Your task to perform on an android device: Add rayovac triple a to the cart on walmart.com, then select checkout. Image 0: 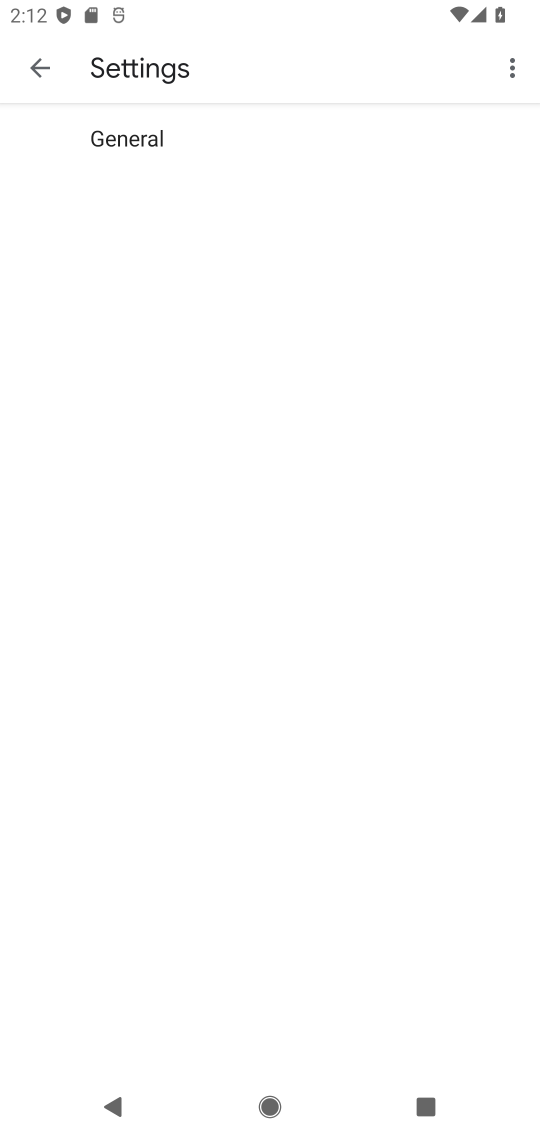
Step 0: press home button
Your task to perform on an android device: Add rayovac triple a to the cart on walmart.com, then select checkout. Image 1: 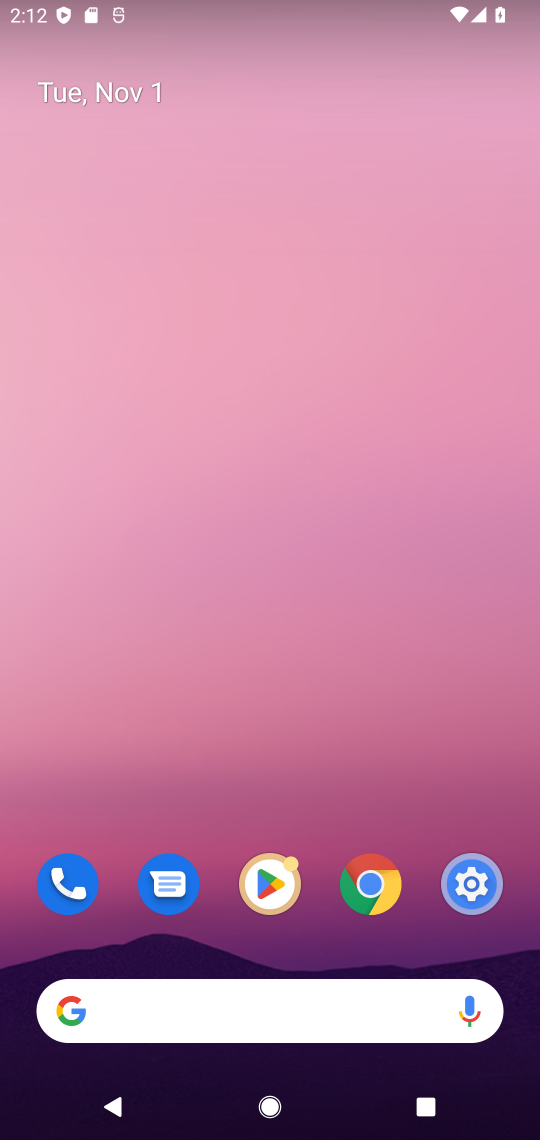
Step 1: drag from (239, 1008) to (265, 278)
Your task to perform on an android device: Add rayovac triple a to the cart on walmart.com, then select checkout. Image 2: 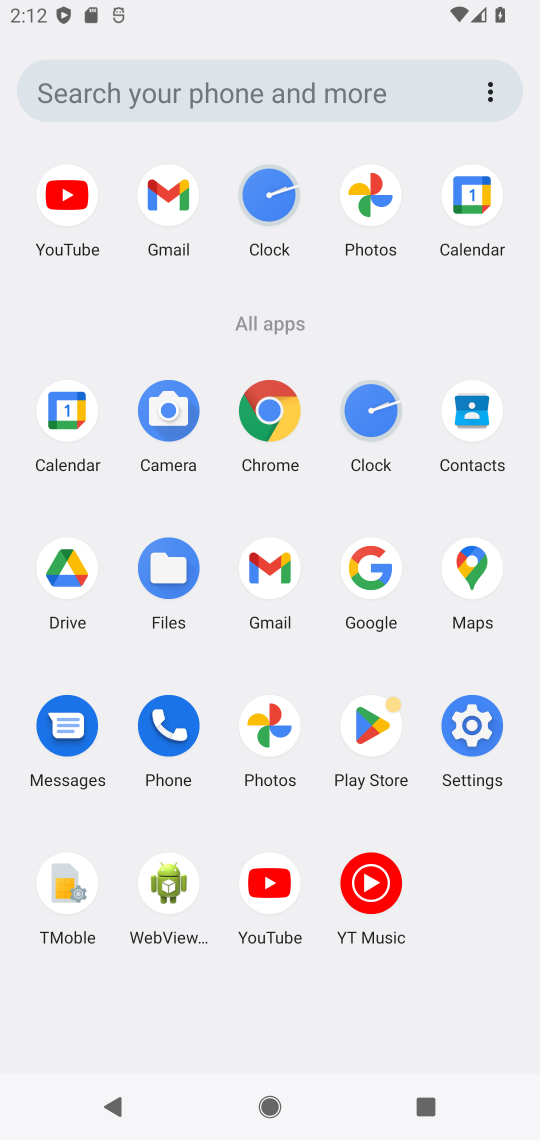
Step 2: click (366, 568)
Your task to perform on an android device: Add rayovac triple a to the cart on walmart.com, then select checkout. Image 3: 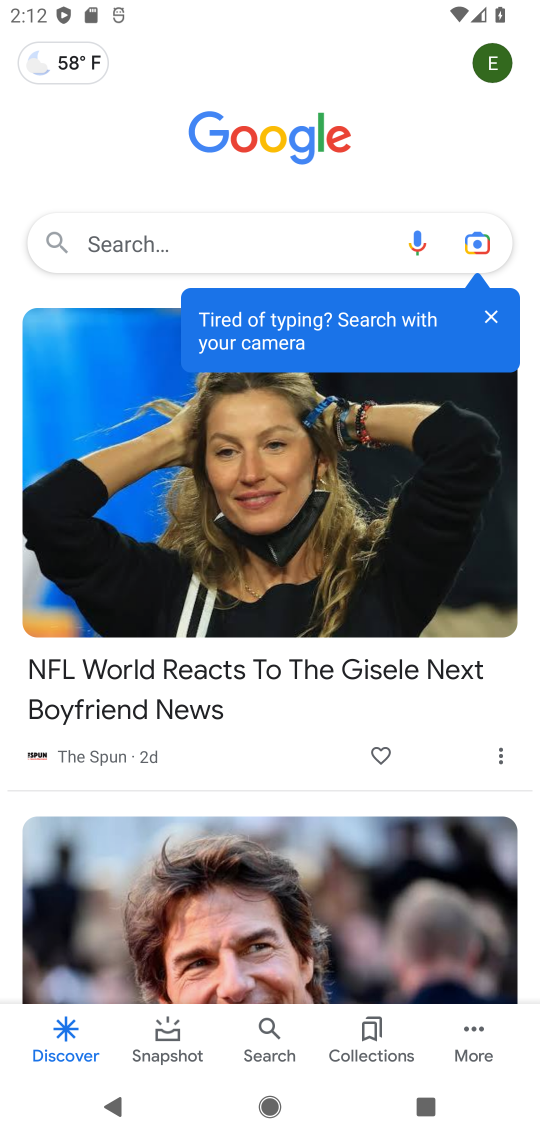
Step 3: click (202, 237)
Your task to perform on an android device: Add rayovac triple a to the cart on walmart.com, then select checkout. Image 4: 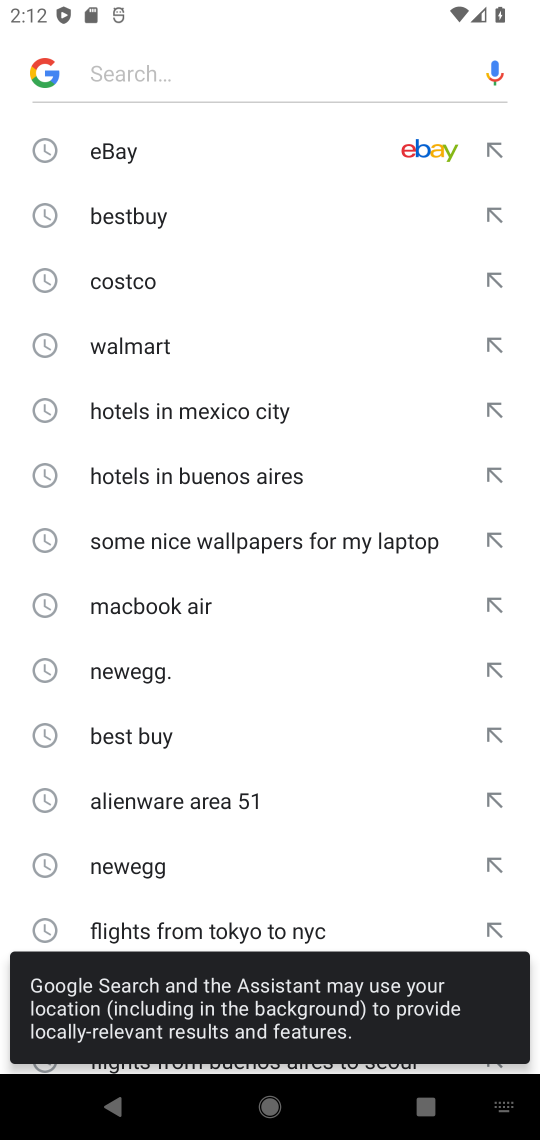
Step 4: type "walmart "
Your task to perform on an android device: Add rayovac triple a to the cart on walmart.com, then select checkout. Image 5: 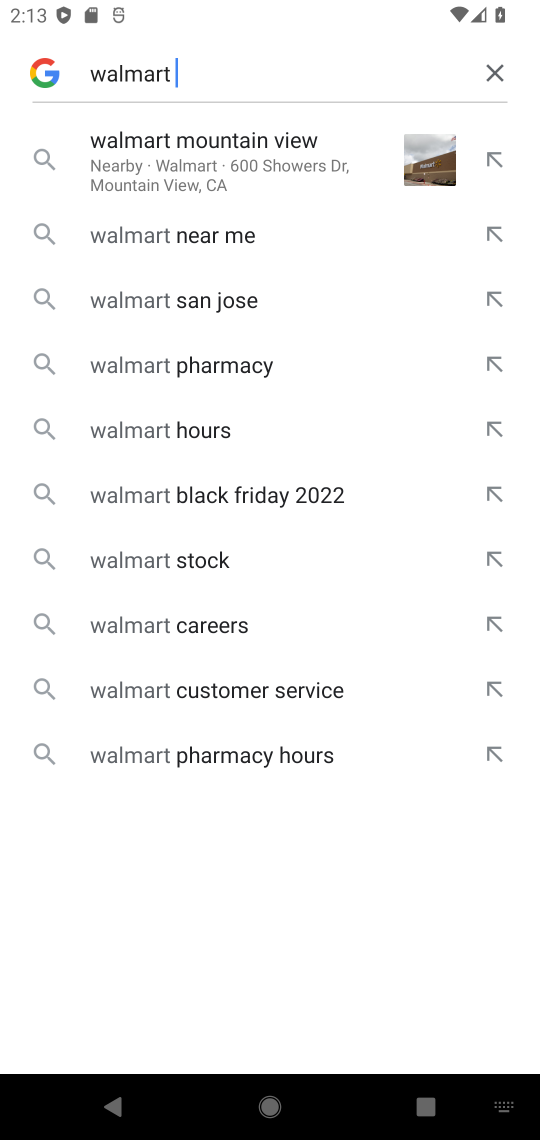
Step 5: click (172, 246)
Your task to perform on an android device: Add rayovac triple a to the cart on walmart.com, then select checkout. Image 6: 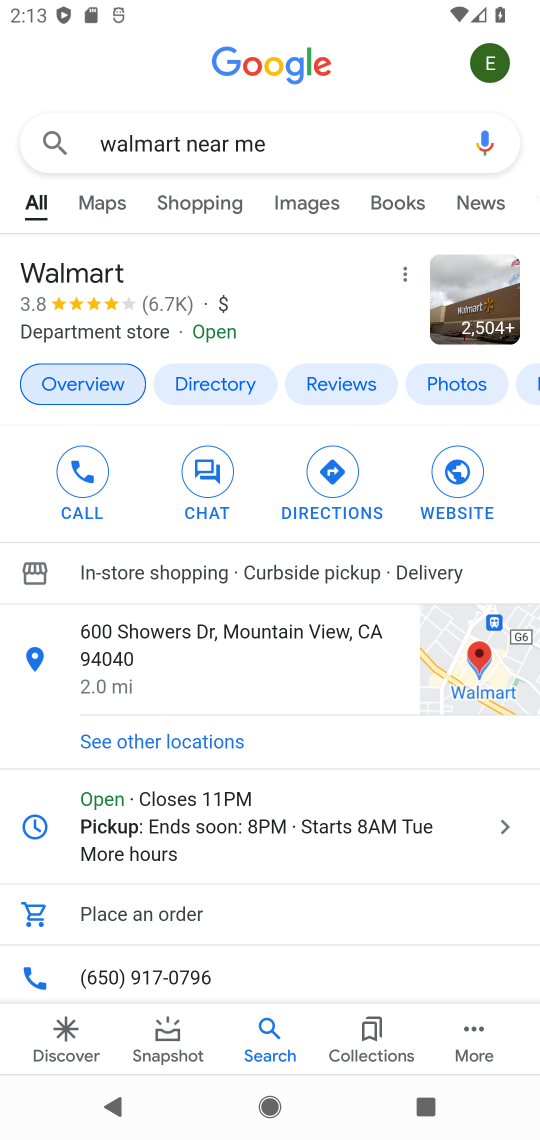
Step 6: drag from (211, 899) to (330, 377)
Your task to perform on an android device: Add rayovac triple a to the cart on walmart.com, then select checkout. Image 7: 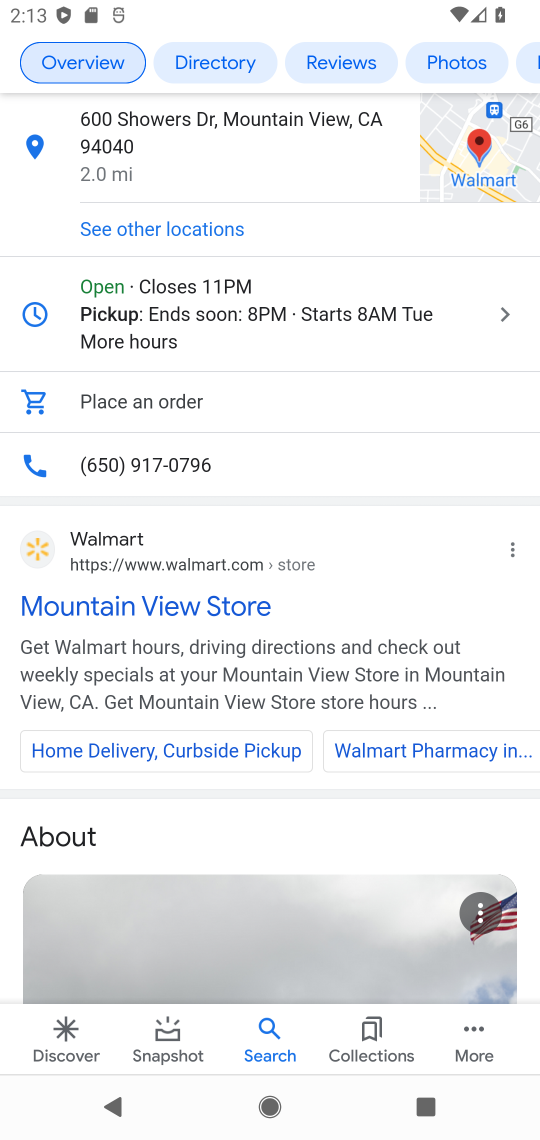
Step 7: drag from (144, 902) to (334, 325)
Your task to perform on an android device: Add rayovac triple a to the cart on walmart.com, then select checkout. Image 8: 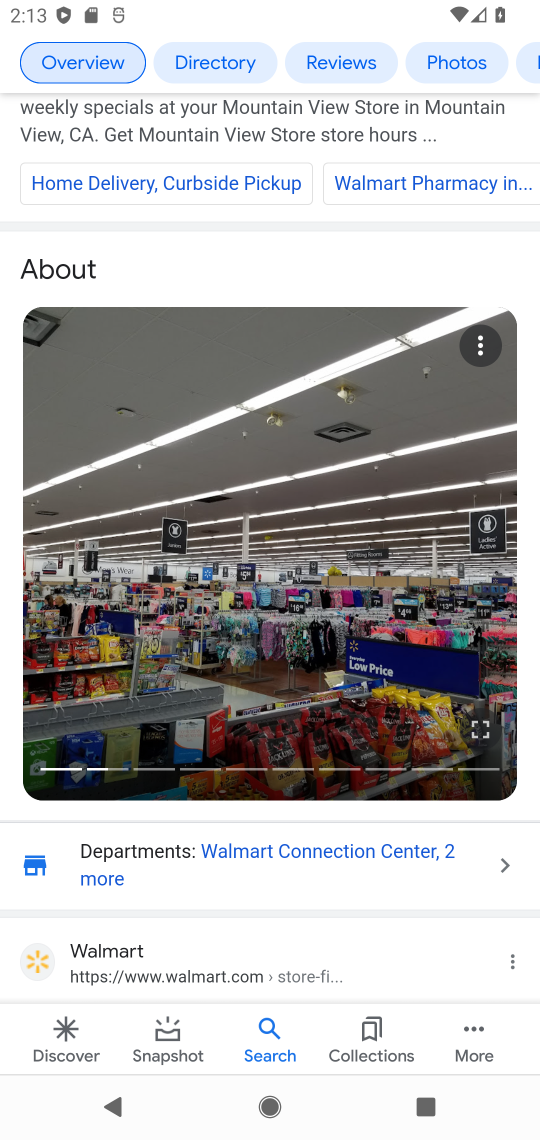
Step 8: drag from (159, 185) to (259, 175)
Your task to perform on an android device: Add rayovac triple a to the cart on walmart.com, then select checkout. Image 9: 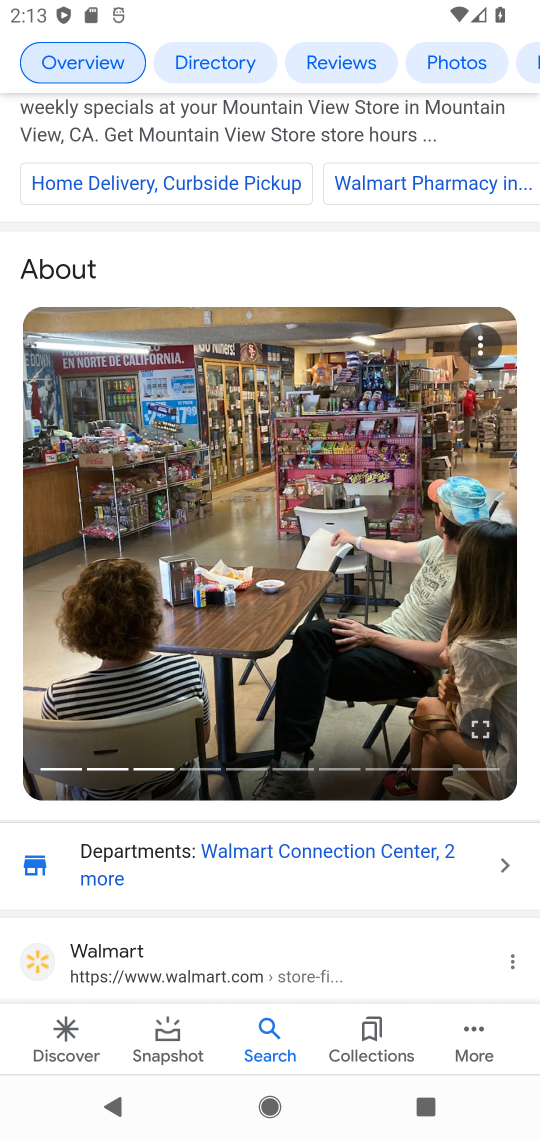
Step 9: drag from (165, 883) to (280, 392)
Your task to perform on an android device: Add rayovac triple a to the cart on walmart.com, then select checkout. Image 10: 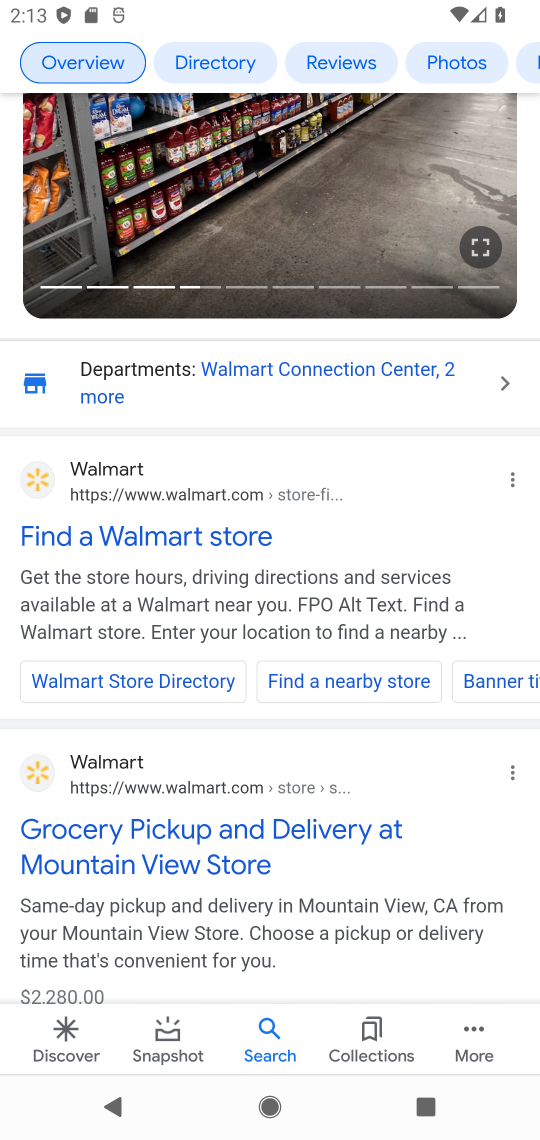
Step 10: click (28, 475)
Your task to perform on an android device: Add rayovac triple a to the cart on walmart.com, then select checkout. Image 11: 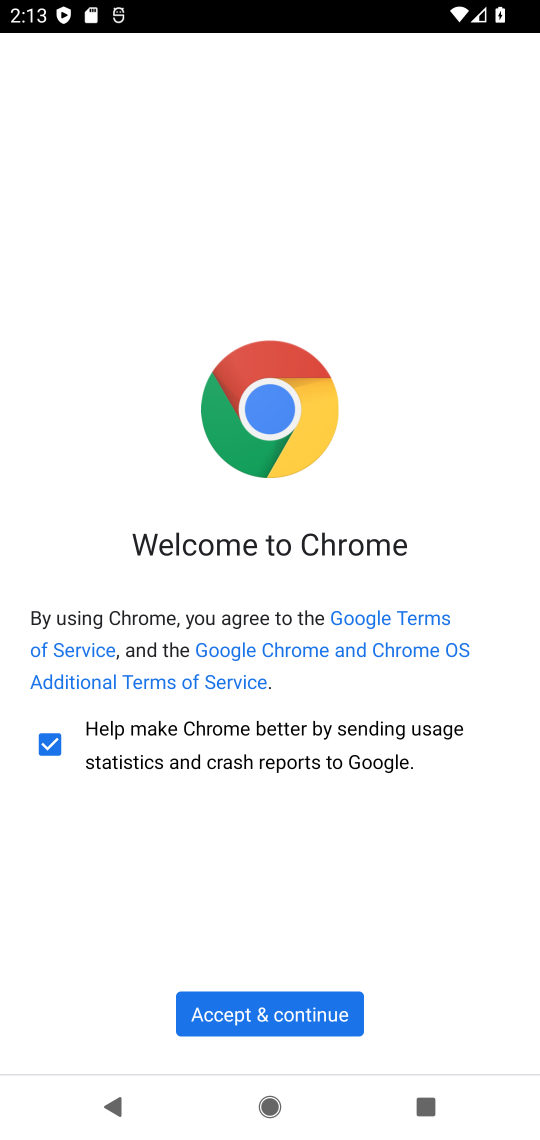
Step 11: click (300, 1009)
Your task to perform on an android device: Add rayovac triple a to the cart on walmart.com, then select checkout. Image 12: 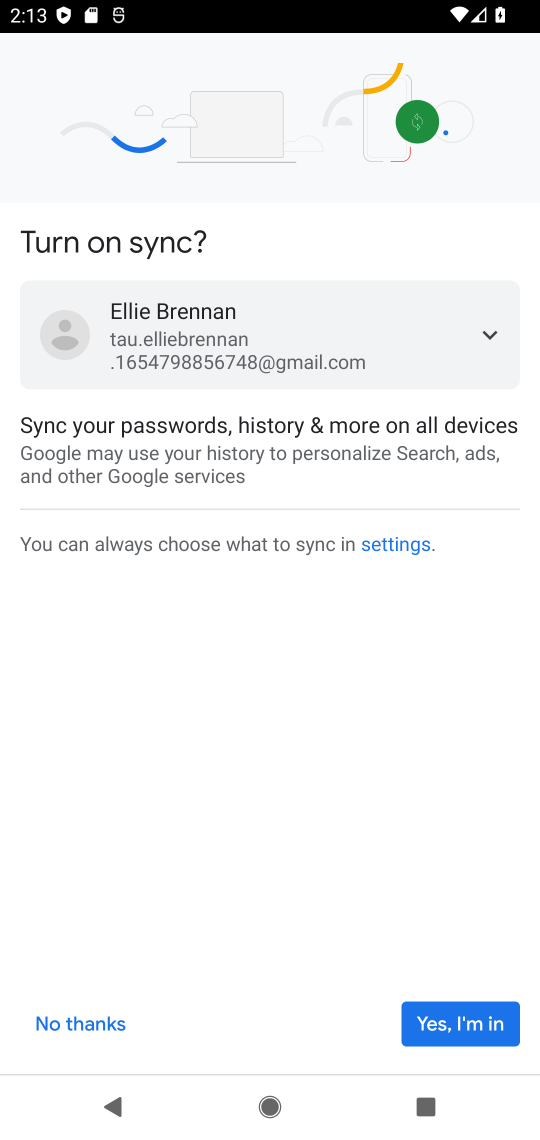
Step 12: click (68, 1022)
Your task to perform on an android device: Add rayovac triple a to the cart on walmart.com, then select checkout. Image 13: 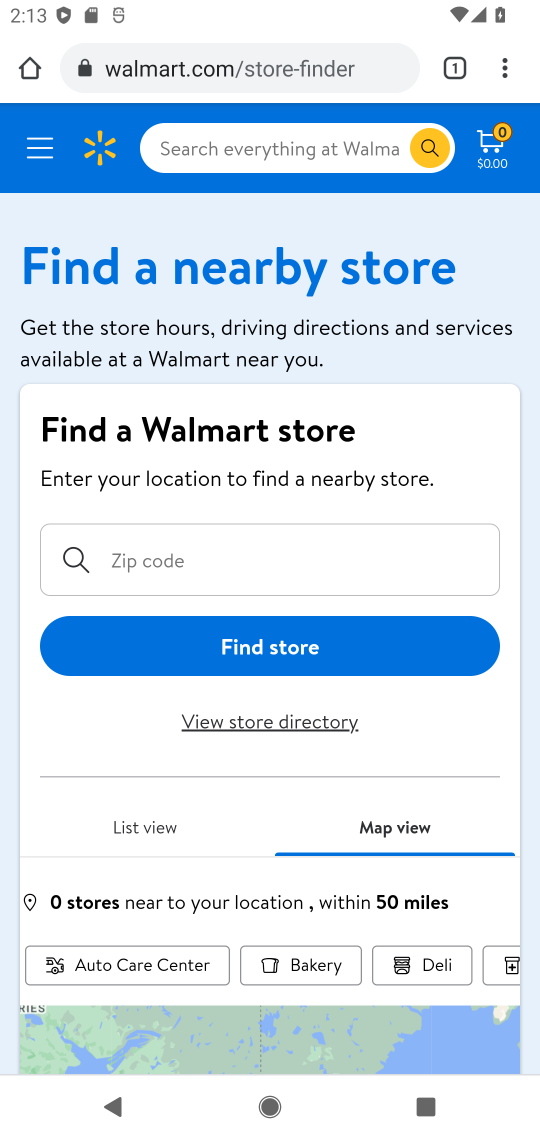
Step 13: drag from (287, 893) to (317, 1060)
Your task to perform on an android device: Add rayovac triple a to the cart on walmart.com, then select checkout. Image 14: 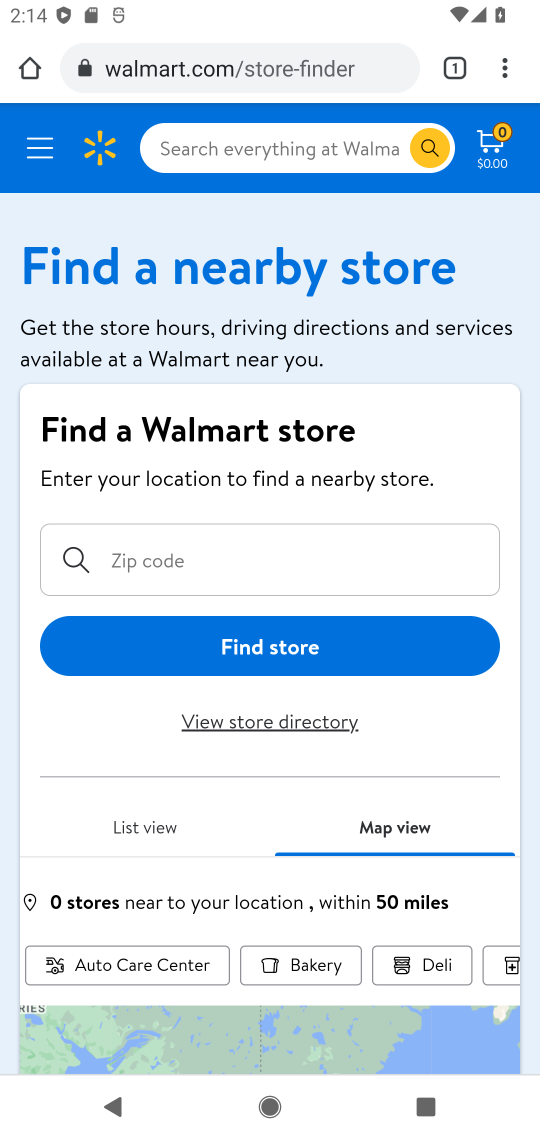
Step 14: click (267, 140)
Your task to perform on an android device: Add rayovac triple a to the cart on walmart.com, then select checkout. Image 15: 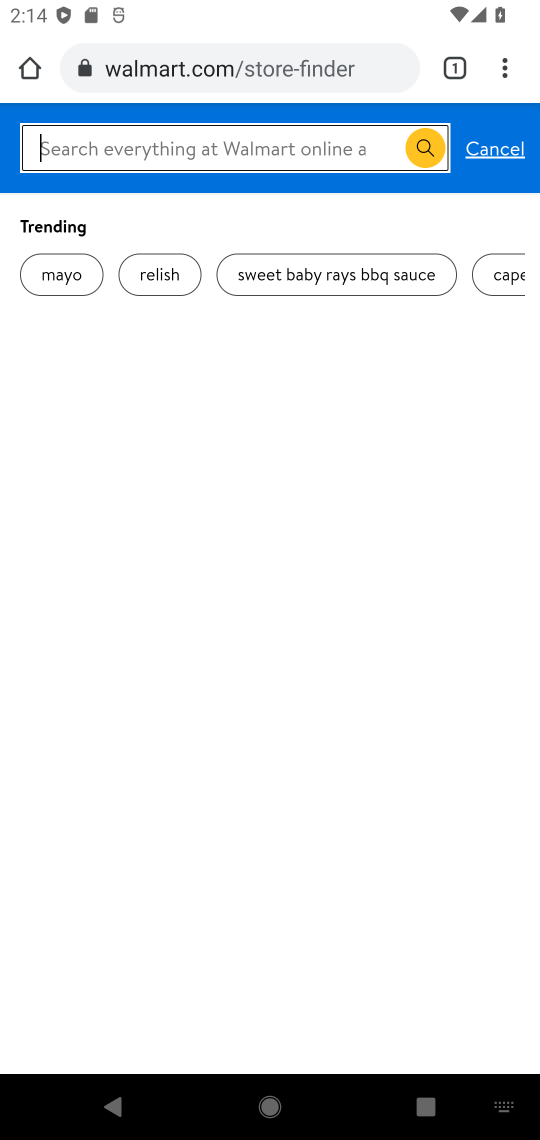
Step 15: type " rayovac triple "
Your task to perform on an android device: Add rayovac triple a to the cart on walmart.com, then select checkout. Image 16: 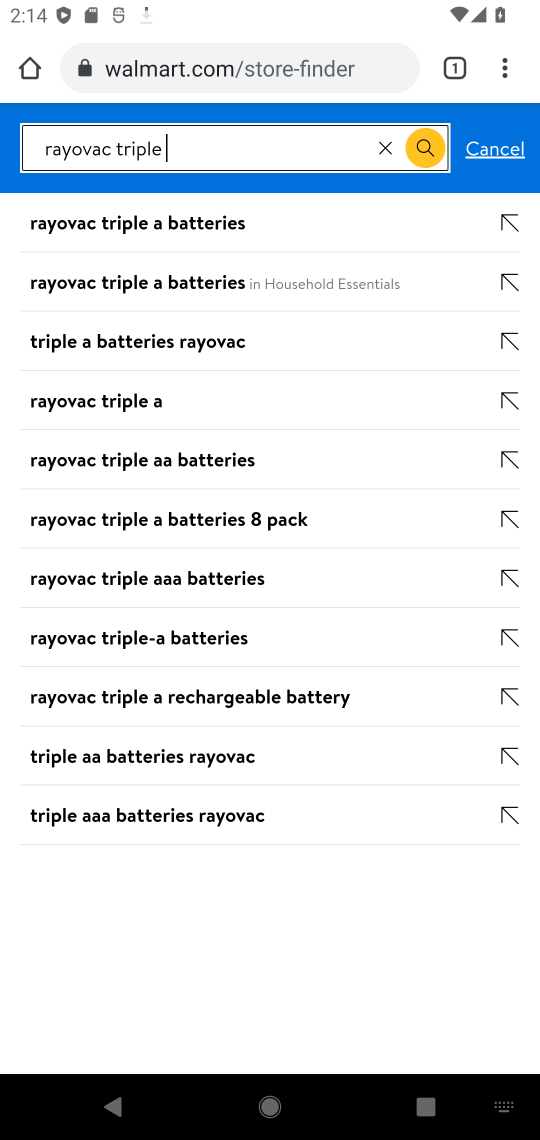
Step 16: click (222, 226)
Your task to perform on an android device: Add rayovac triple a to the cart on walmart.com, then select checkout. Image 17: 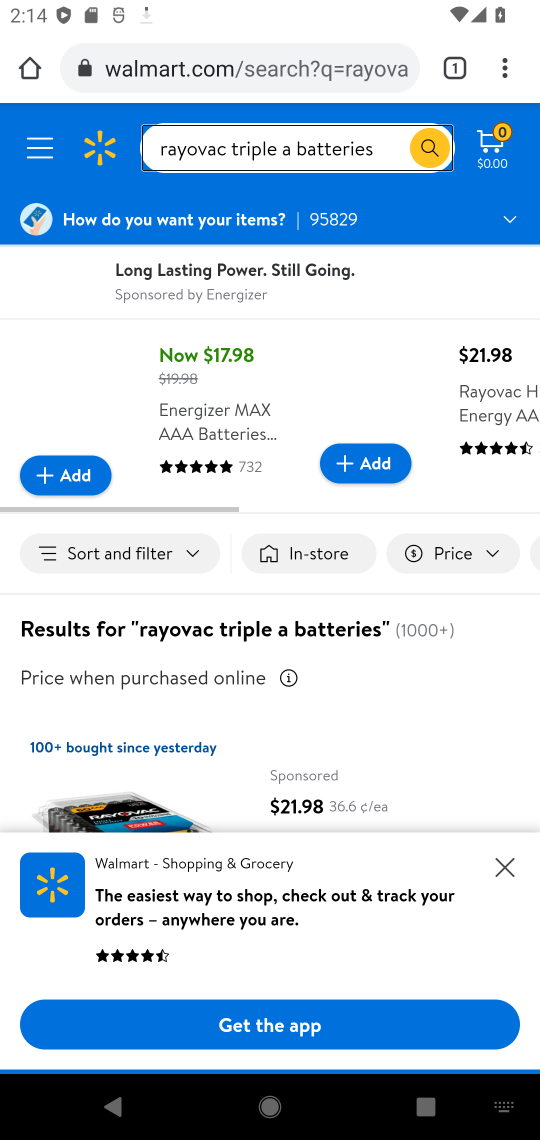
Step 17: click (496, 866)
Your task to perform on an android device: Add rayovac triple a to the cart on walmart.com, then select checkout. Image 18: 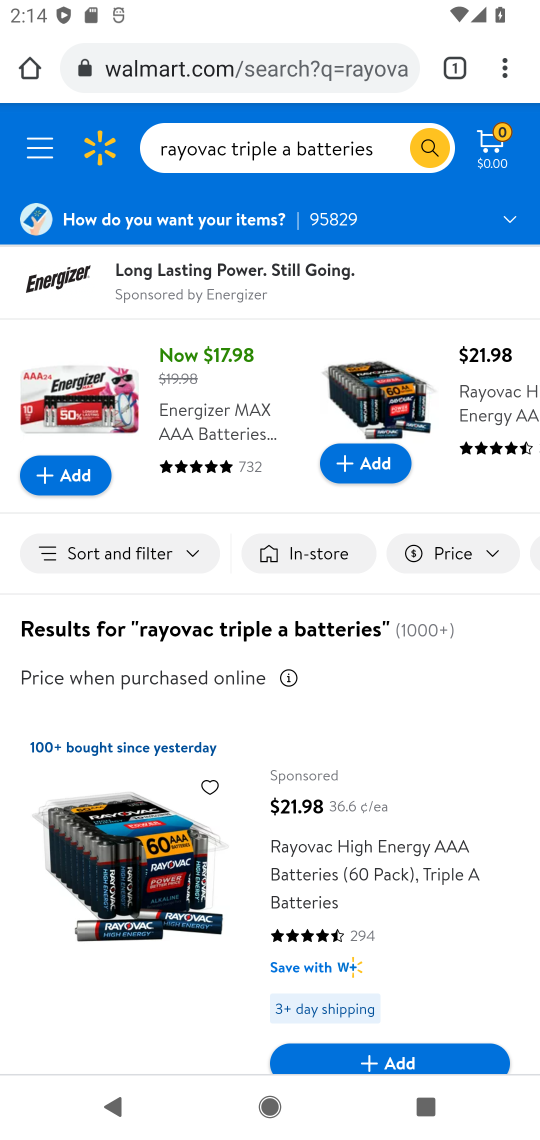
Step 18: drag from (369, 1007) to (389, 659)
Your task to perform on an android device: Add rayovac triple a to the cart on walmart.com, then select checkout. Image 19: 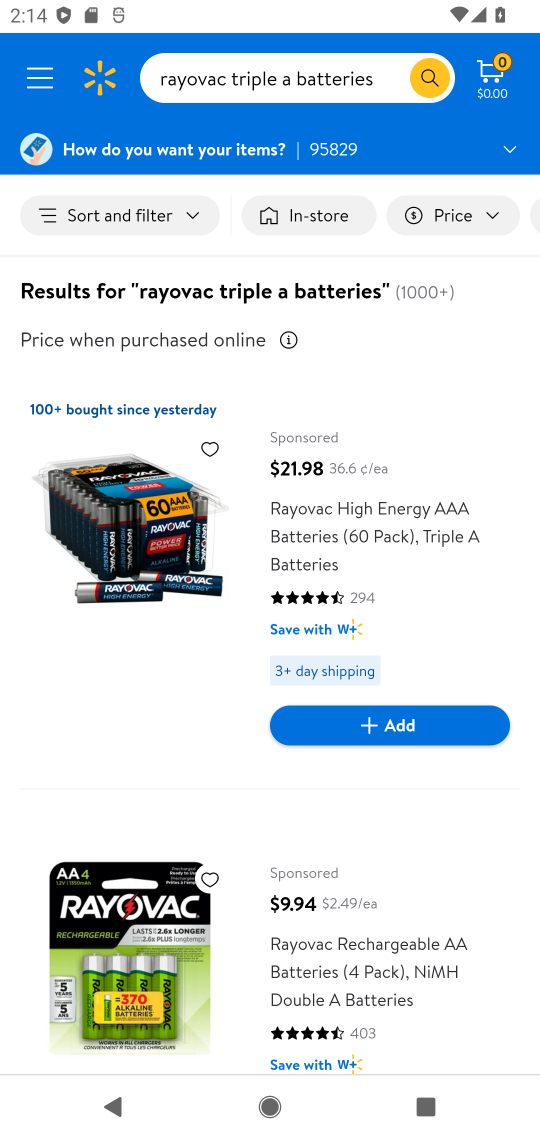
Step 19: click (372, 717)
Your task to perform on an android device: Add rayovac triple a to the cart on walmart.com, then select checkout. Image 20: 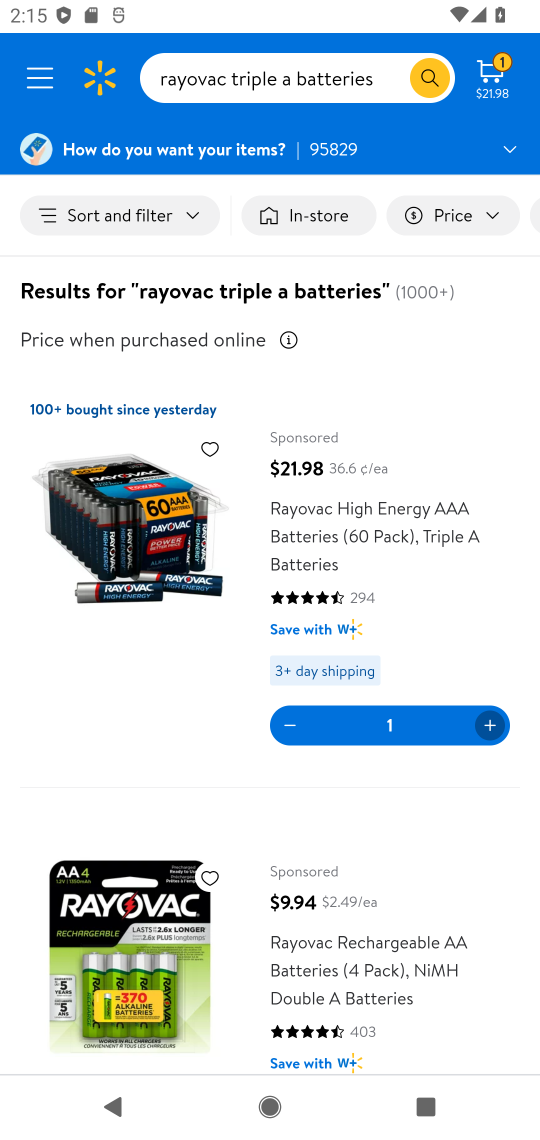
Step 20: task complete